Your task to perform on an android device: Clear the cart on walmart.com. Search for "razer nari" on walmart.com, select the first entry, add it to the cart, then select checkout. Image 0: 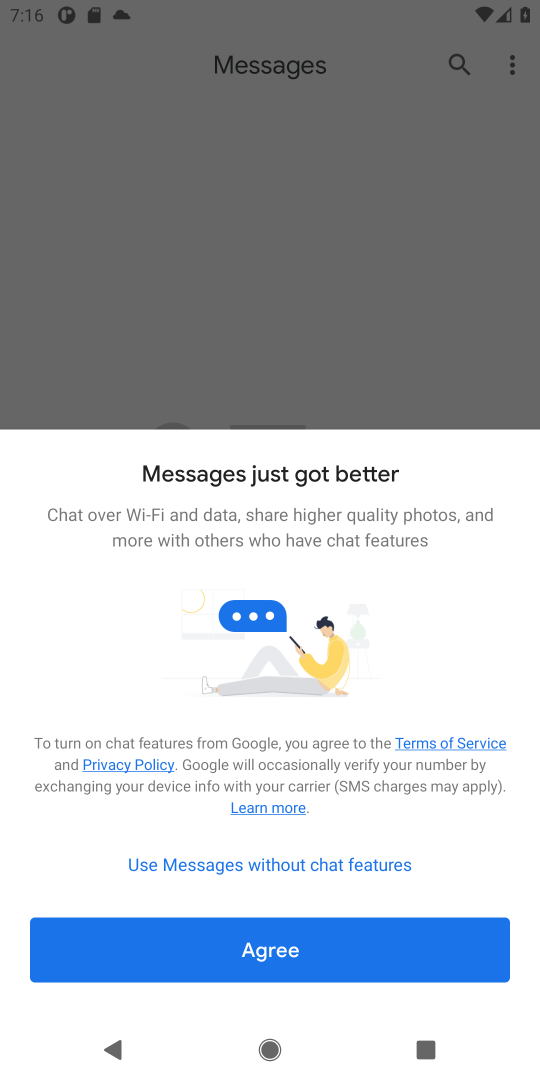
Step 0: press home button
Your task to perform on an android device: Clear the cart on walmart.com. Search for "razer nari" on walmart.com, select the first entry, add it to the cart, then select checkout. Image 1: 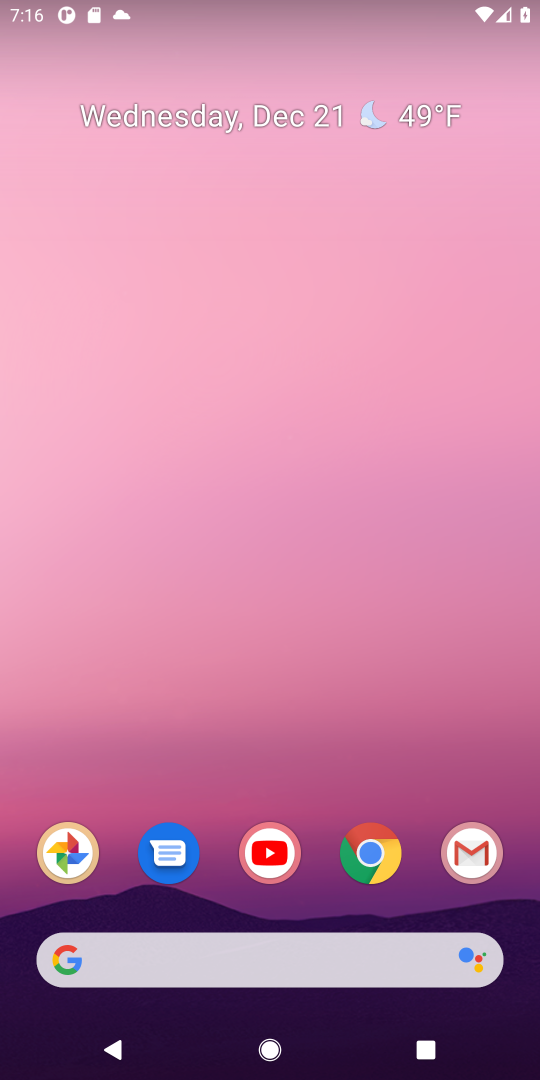
Step 1: click (376, 866)
Your task to perform on an android device: Clear the cart on walmart.com. Search for "razer nari" on walmart.com, select the first entry, add it to the cart, then select checkout. Image 2: 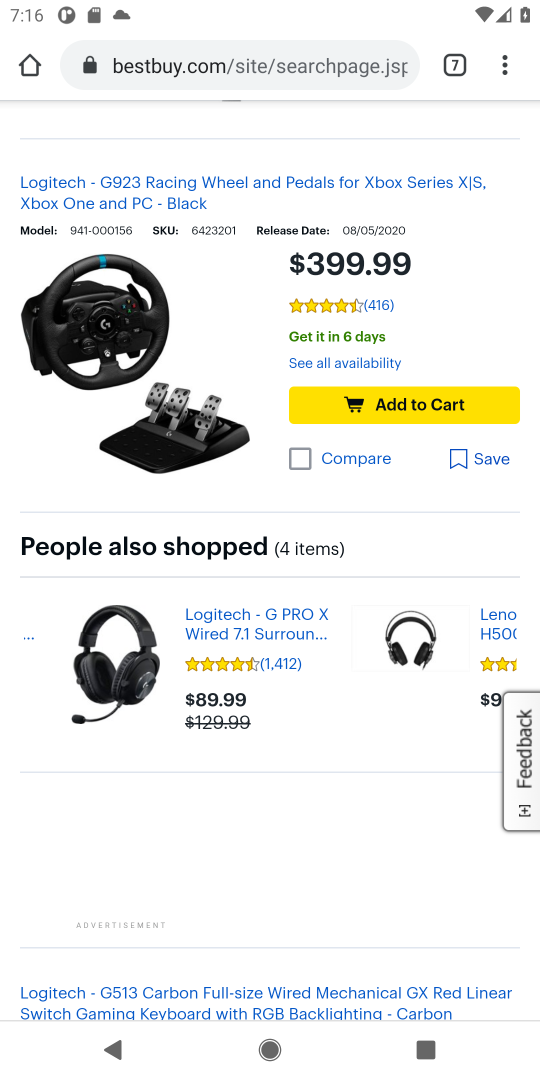
Step 2: click (466, 63)
Your task to perform on an android device: Clear the cart on walmart.com. Search for "razer nari" on walmart.com, select the first entry, add it to the cart, then select checkout. Image 3: 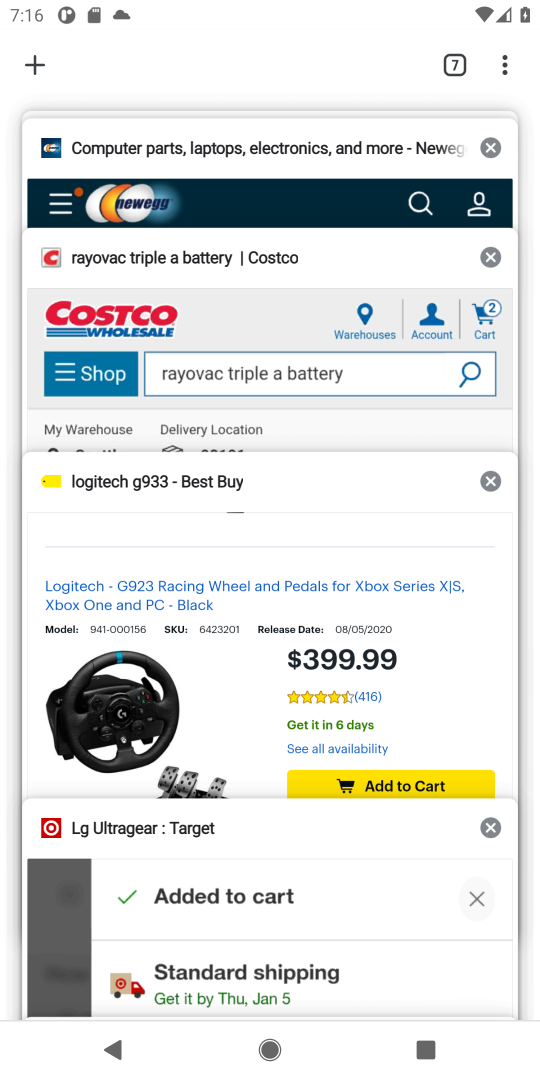
Step 3: drag from (296, 171) to (263, 399)
Your task to perform on an android device: Clear the cart on walmart.com. Search for "razer nari" on walmart.com, select the first entry, add it to the cart, then select checkout. Image 4: 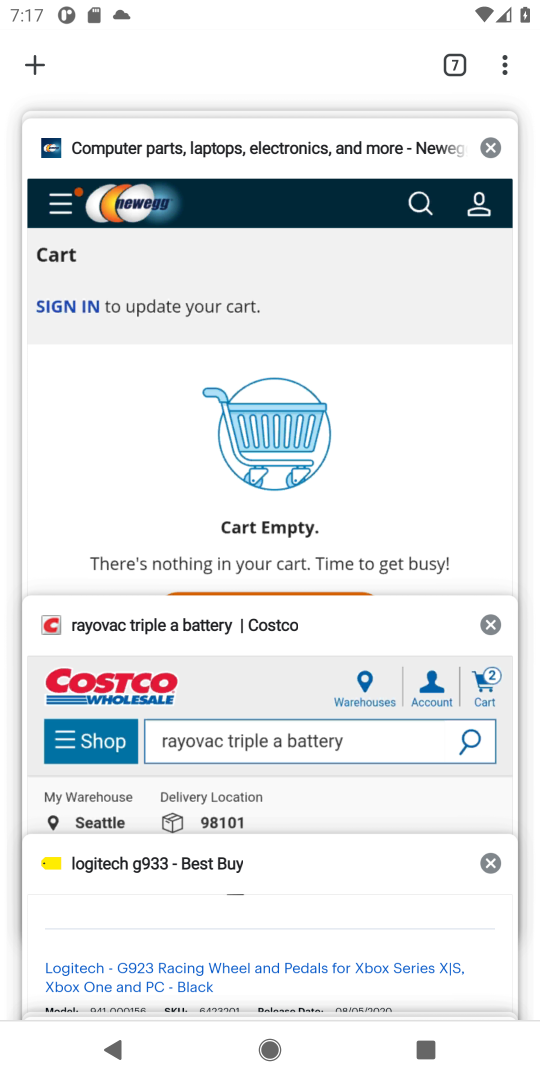
Step 4: drag from (284, 159) to (283, 374)
Your task to perform on an android device: Clear the cart on walmart.com. Search for "razer nari" on walmart.com, select the first entry, add it to the cart, then select checkout. Image 5: 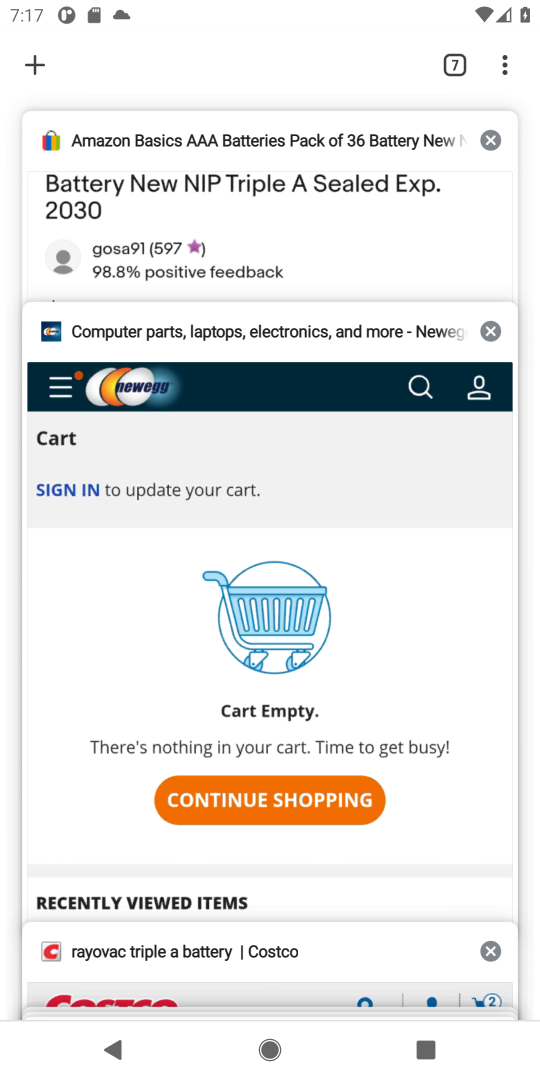
Step 5: drag from (107, 972) to (176, 424)
Your task to perform on an android device: Clear the cart on walmart.com. Search for "razer nari" on walmart.com, select the first entry, add it to the cart, then select checkout. Image 6: 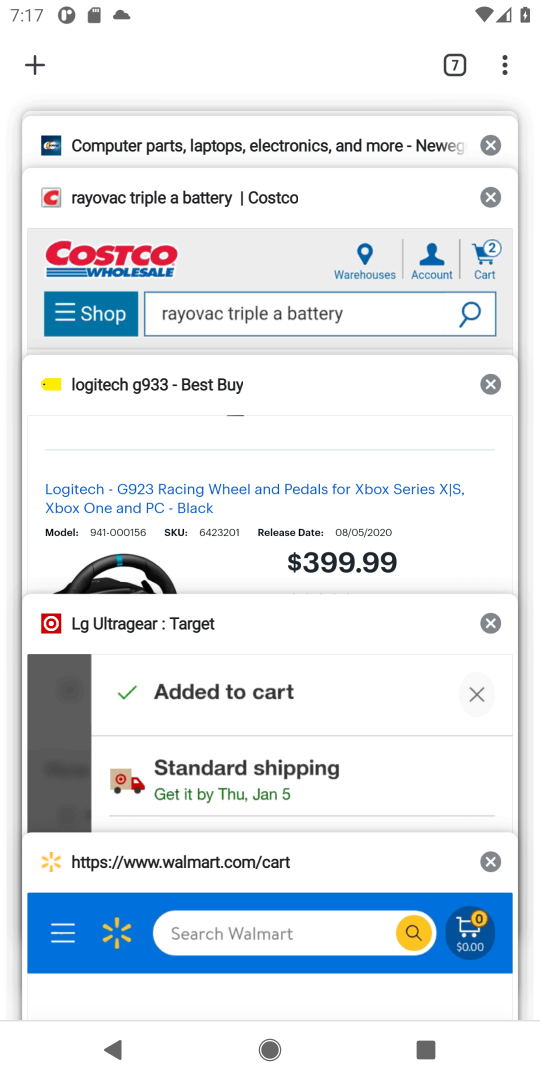
Step 6: click (60, 881)
Your task to perform on an android device: Clear the cart on walmart.com. Search for "razer nari" on walmart.com, select the first entry, add it to the cart, then select checkout. Image 7: 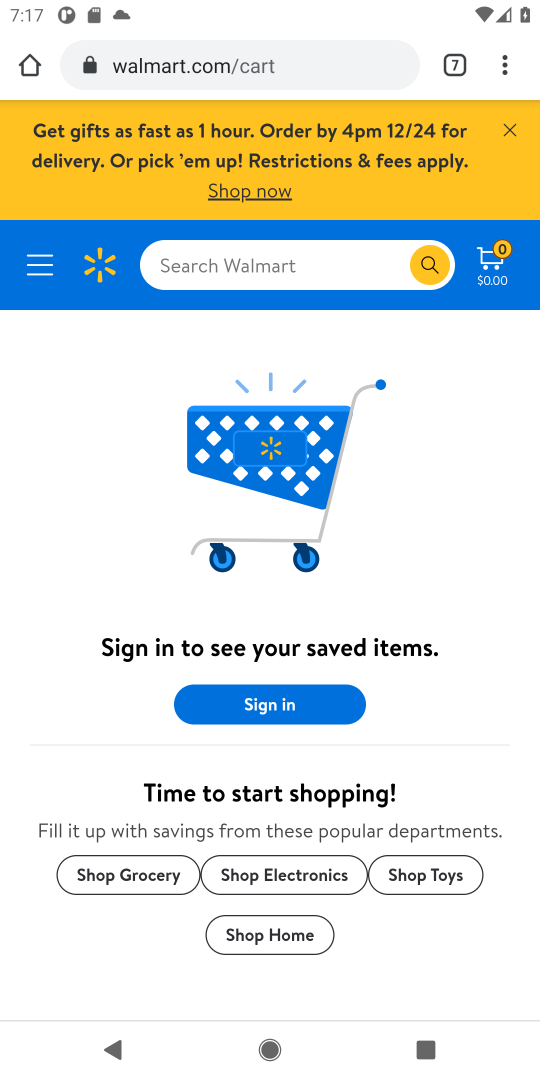
Step 7: click (505, 125)
Your task to perform on an android device: Clear the cart on walmart.com. Search for "razer nari" on walmart.com, select the first entry, add it to the cart, then select checkout. Image 8: 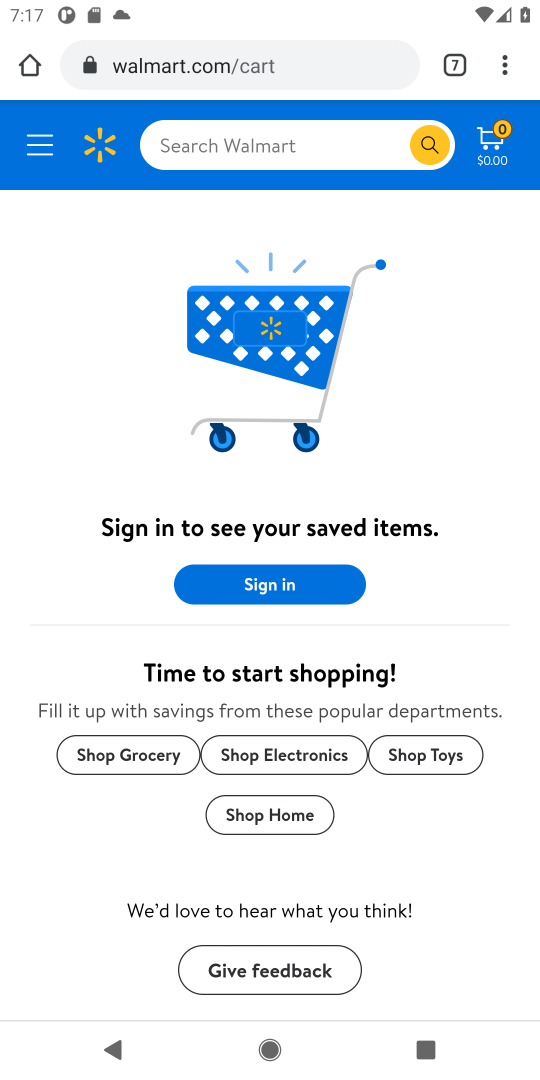
Step 8: click (309, 141)
Your task to perform on an android device: Clear the cart on walmart.com. Search for "razer nari" on walmart.com, select the first entry, add it to the cart, then select checkout. Image 9: 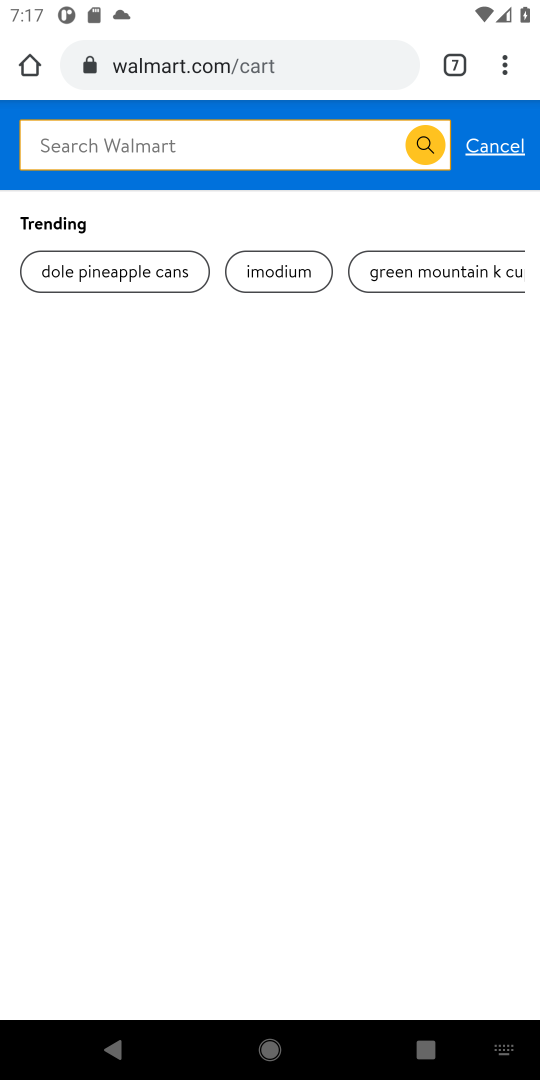
Step 9: type "razer nari"
Your task to perform on an android device: Clear the cart on walmart.com. Search for "razer nari" on walmart.com, select the first entry, add it to the cart, then select checkout. Image 10: 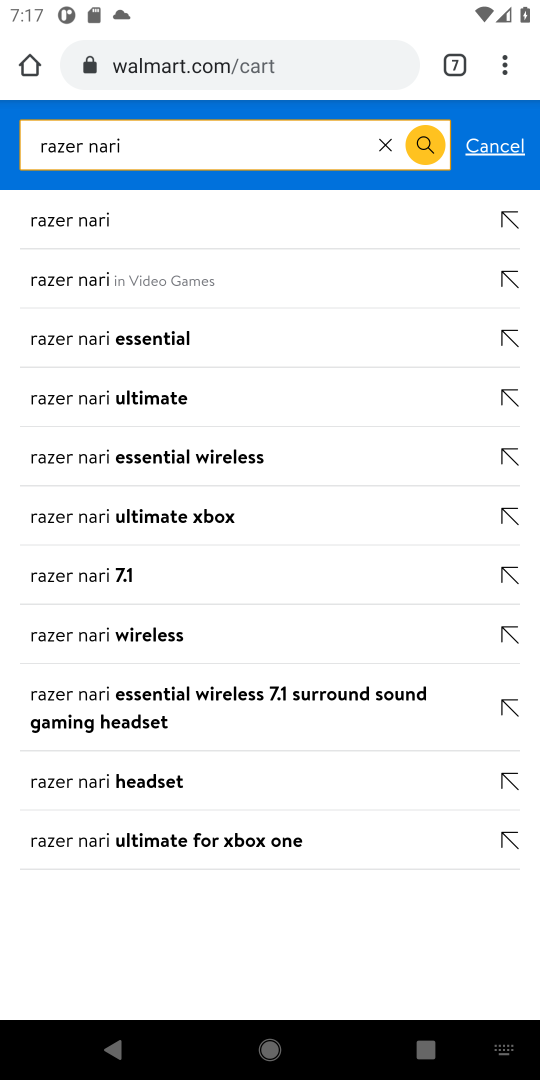
Step 10: click (422, 136)
Your task to perform on an android device: Clear the cart on walmart.com. Search for "razer nari" on walmart.com, select the first entry, add it to the cart, then select checkout. Image 11: 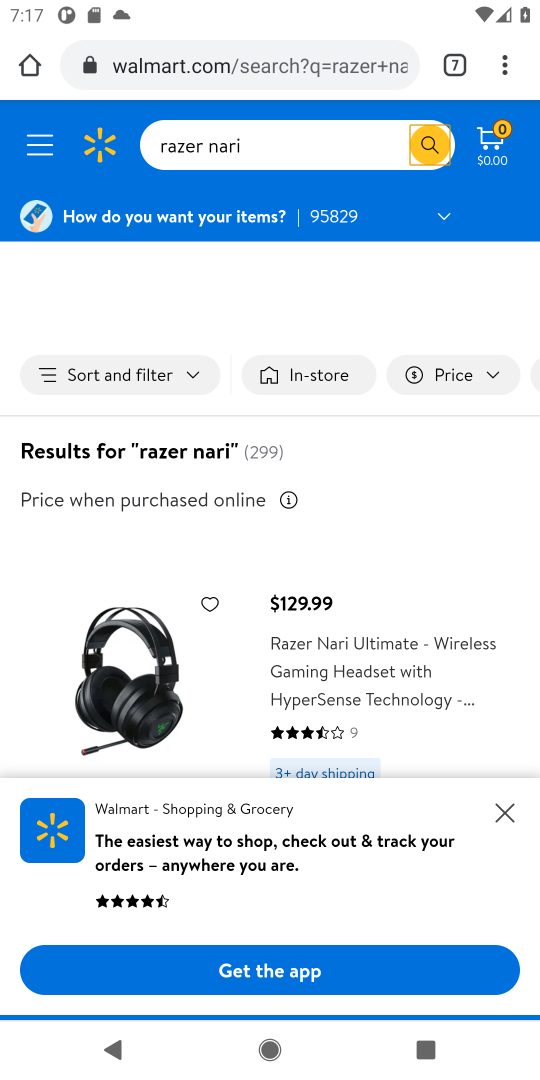
Step 11: click (495, 808)
Your task to perform on an android device: Clear the cart on walmart.com. Search for "razer nari" on walmart.com, select the first entry, add it to the cart, then select checkout. Image 12: 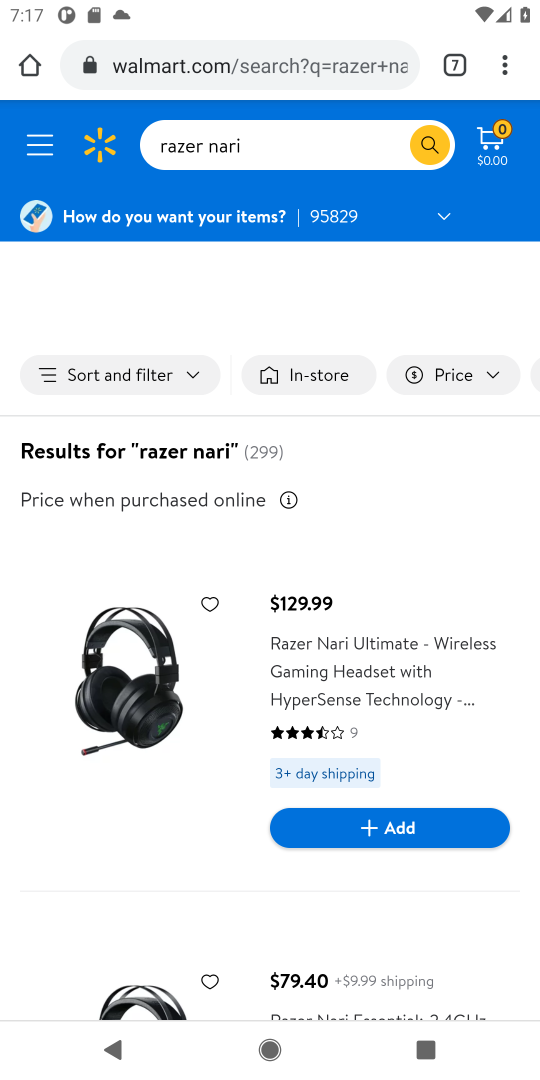
Step 12: click (411, 828)
Your task to perform on an android device: Clear the cart on walmart.com. Search for "razer nari" on walmart.com, select the first entry, add it to the cart, then select checkout. Image 13: 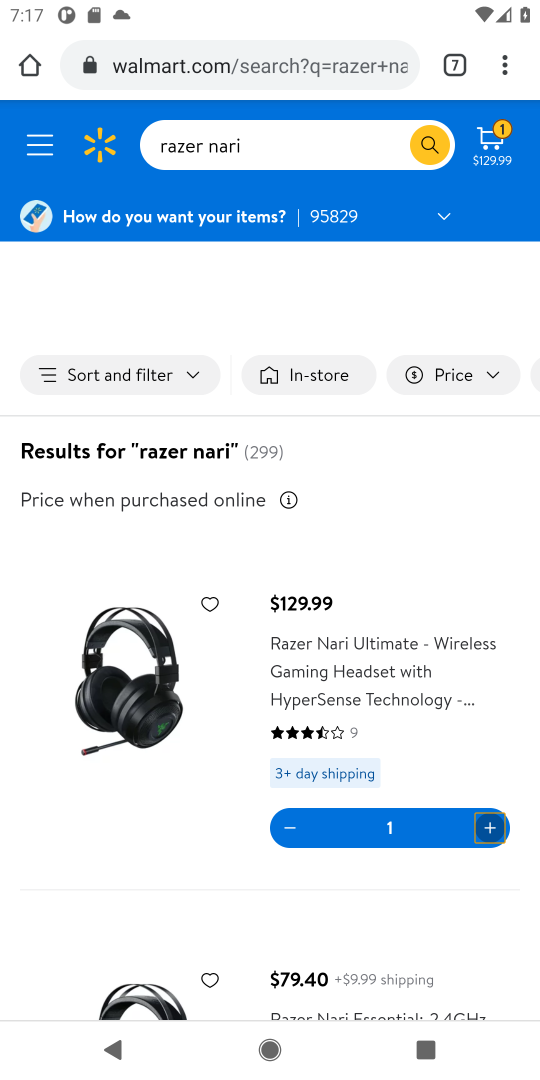
Step 13: task complete